Your task to perform on an android device: open chrome privacy settings Image 0: 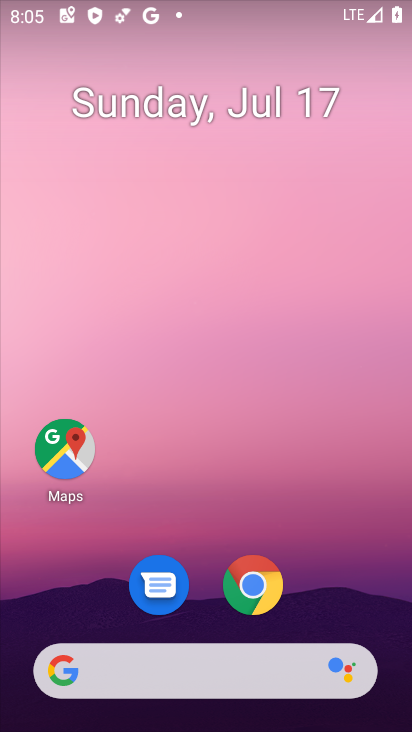
Step 0: click (255, 583)
Your task to perform on an android device: open chrome privacy settings Image 1: 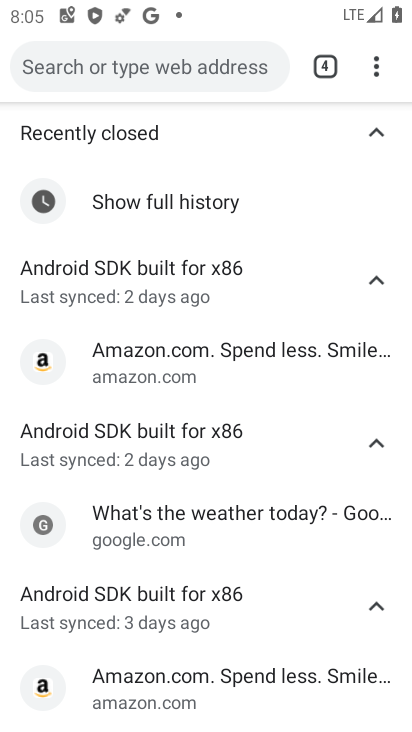
Step 1: click (371, 62)
Your task to perform on an android device: open chrome privacy settings Image 2: 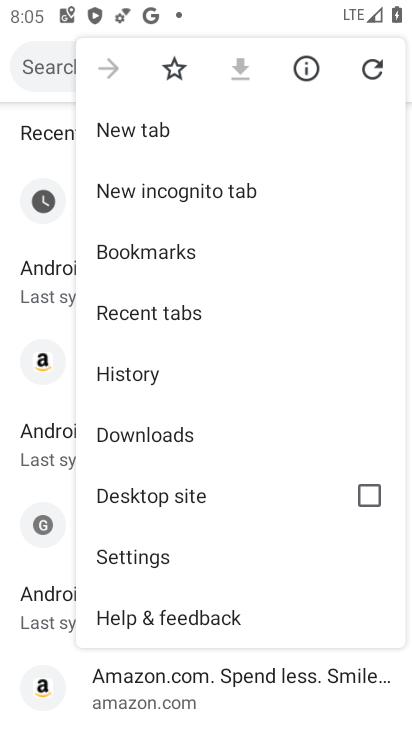
Step 2: click (162, 559)
Your task to perform on an android device: open chrome privacy settings Image 3: 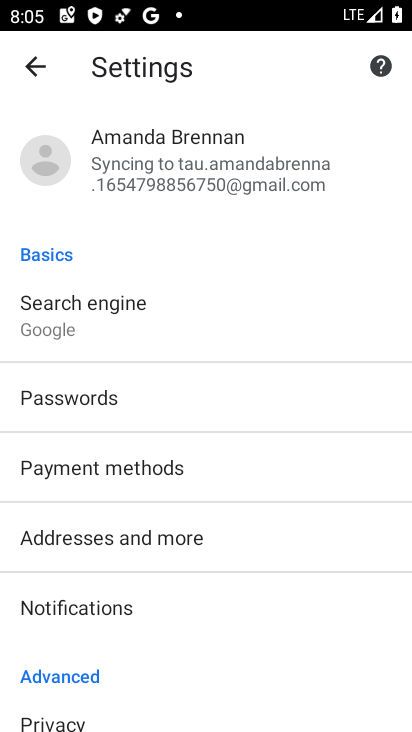
Step 3: drag from (198, 614) to (241, 375)
Your task to perform on an android device: open chrome privacy settings Image 4: 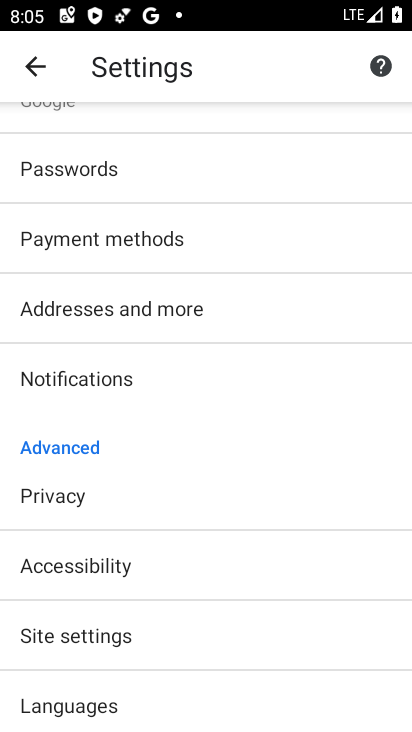
Step 4: click (69, 494)
Your task to perform on an android device: open chrome privacy settings Image 5: 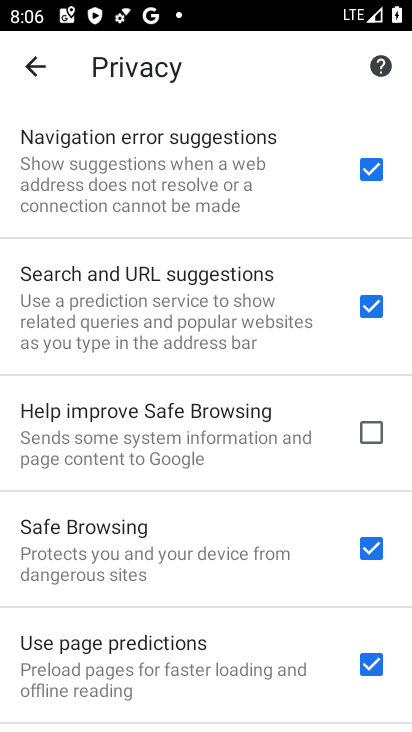
Step 5: task complete